Your task to perform on an android device: toggle airplane mode Image 0: 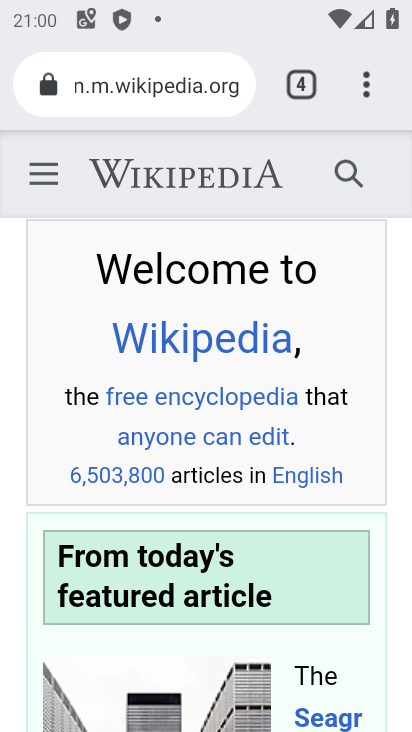
Step 0: drag from (240, 11) to (253, 600)
Your task to perform on an android device: toggle airplane mode Image 1: 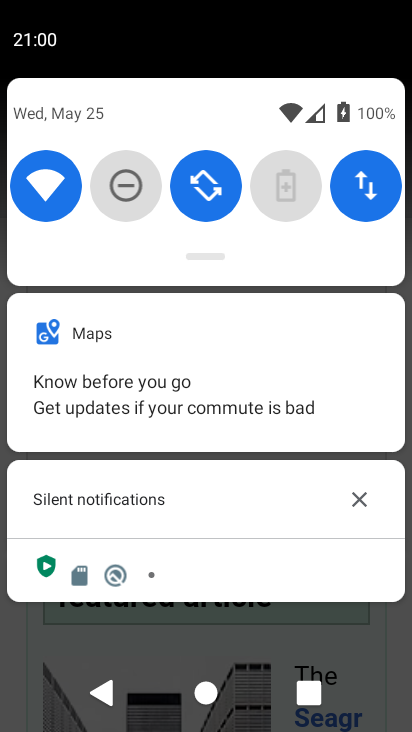
Step 1: drag from (218, 106) to (164, 648)
Your task to perform on an android device: toggle airplane mode Image 2: 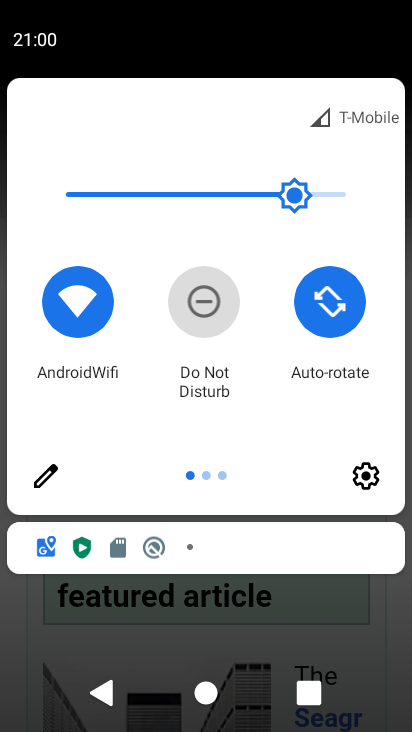
Step 2: drag from (356, 403) to (76, 427)
Your task to perform on an android device: toggle airplane mode Image 3: 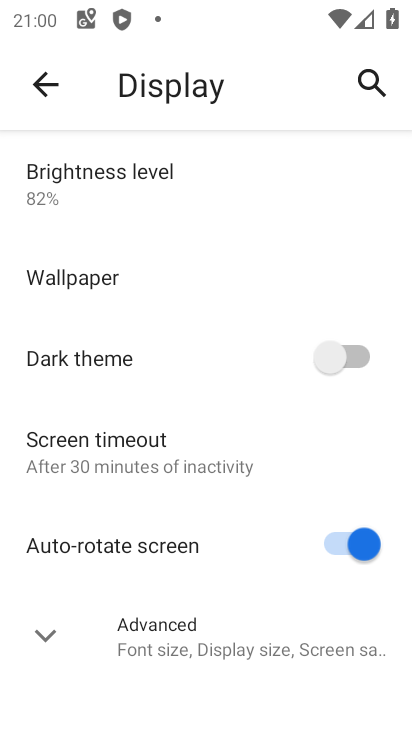
Step 3: click (58, 94)
Your task to perform on an android device: toggle airplane mode Image 4: 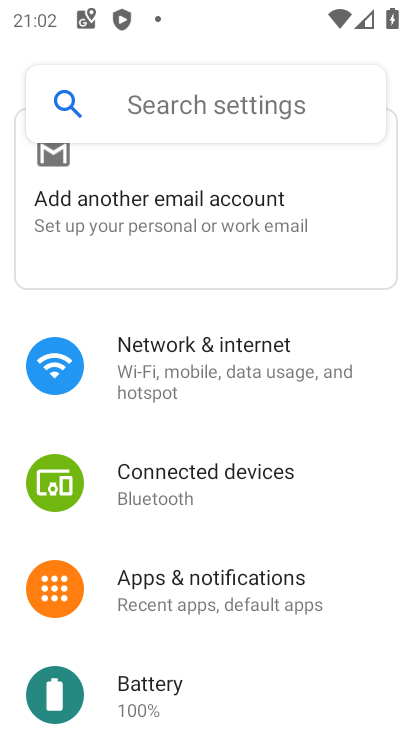
Step 4: click (245, 369)
Your task to perform on an android device: toggle airplane mode Image 5: 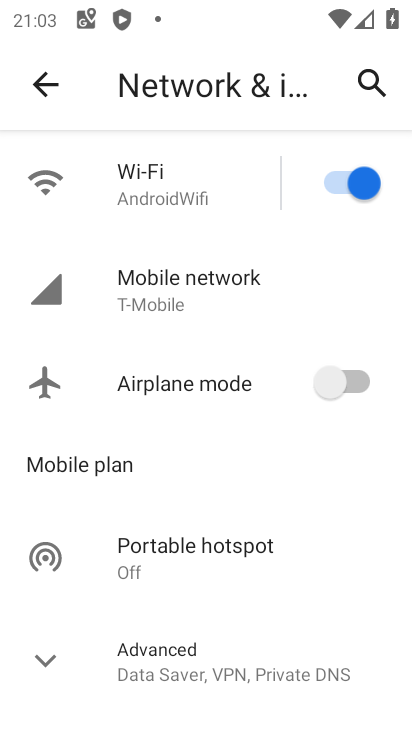
Step 5: click (369, 377)
Your task to perform on an android device: toggle airplane mode Image 6: 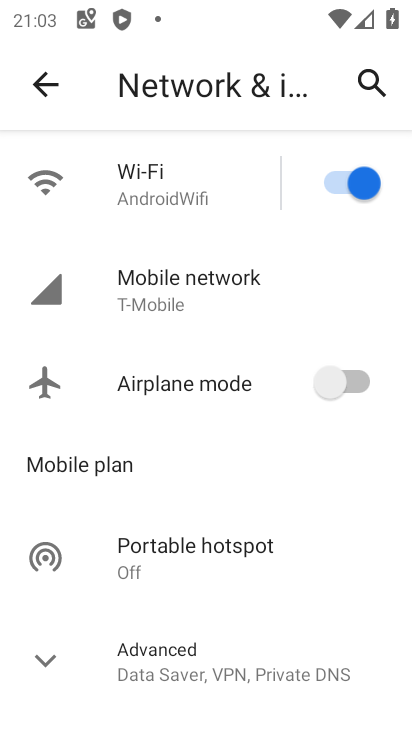
Step 6: click (369, 377)
Your task to perform on an android device: toggle airplane mode Image 7: 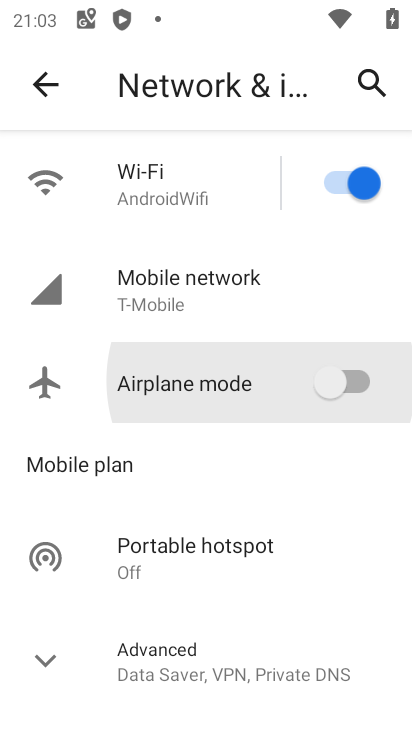
Step 7: click (369, 377)
Your task to perform on an android device: toggle airplane mode Image 8: 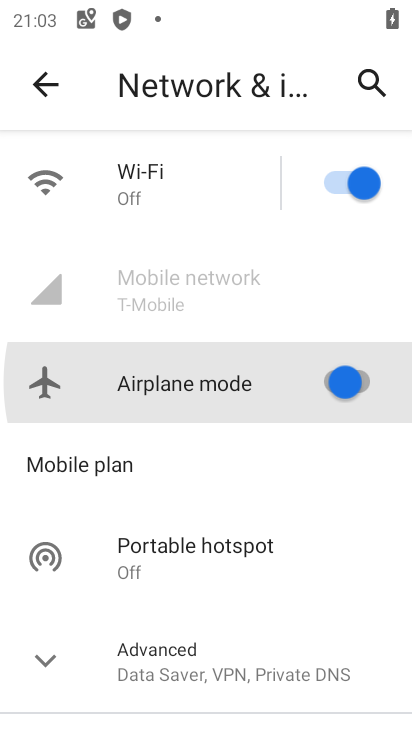
Step 8: click (369, 377)
Your task to perform on an android device: toggle airplane mode Image 9: 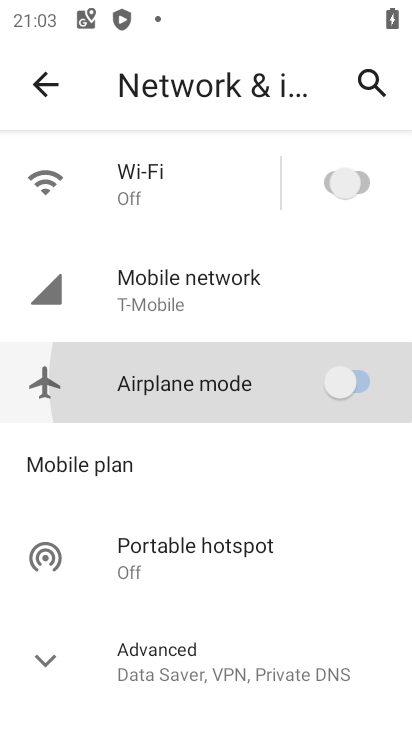
Step 9: click (369, 377)
Your task to perform on an android device: toggle airplane mode Image 10: 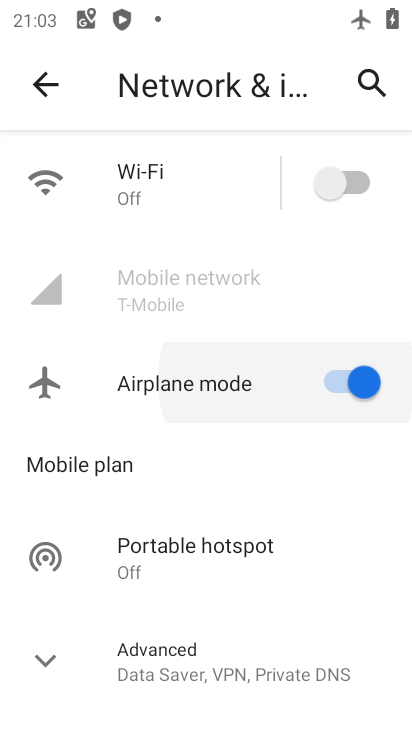
Step 10: click (369, 377)
Your task to perform on an android device: toggle airplane mode Image 11: 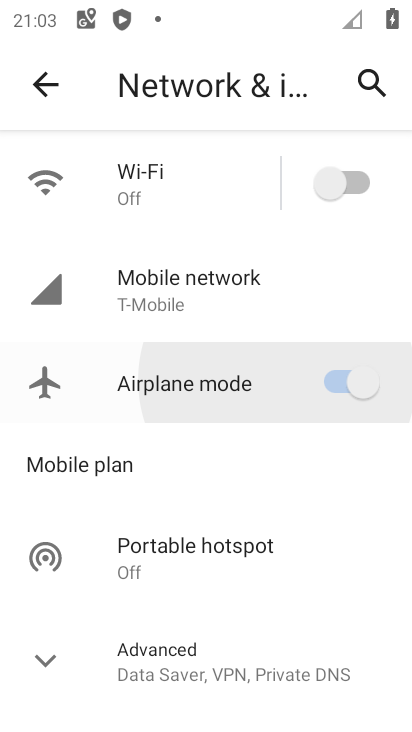
Step 11: click (369, 377)
Your task to perform on an android device: toggle airplane mode Image 12: 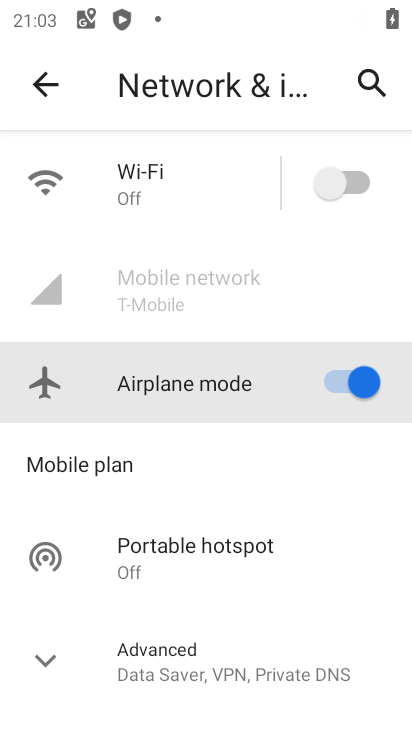
Step 12: click (369, 377)
Your task to perform on an android device: toggle airplane mode Image 13: 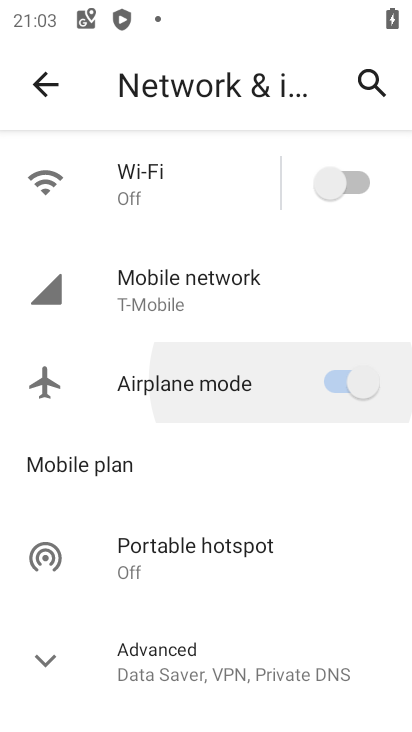
Step 13: click (369, 377)
Your task to perform on an android device: toggle airplane mode Image 14: 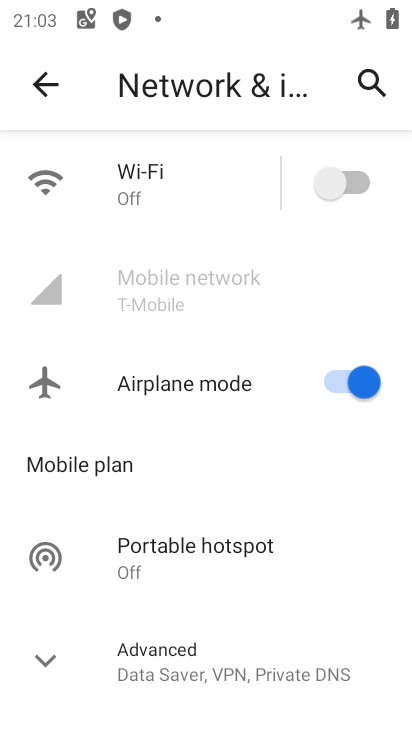
Step 14: click (369, 377)
Your task to perform on an android device: toggle airplane mode Image 15: 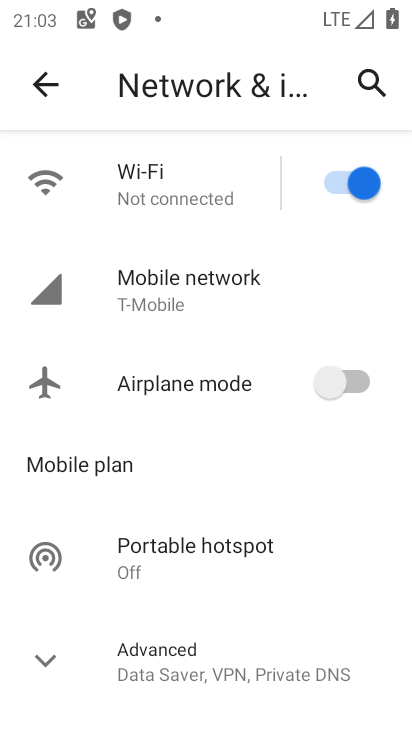
Step 15: task complete